Your task to perform on an android device: Open CNN.com Image 0: 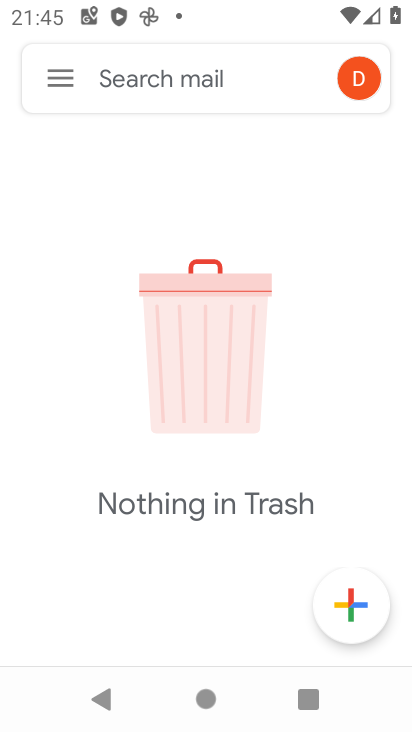
Step 0: press home button
Your task to perform on an android device: Open CNN.com Image 1: 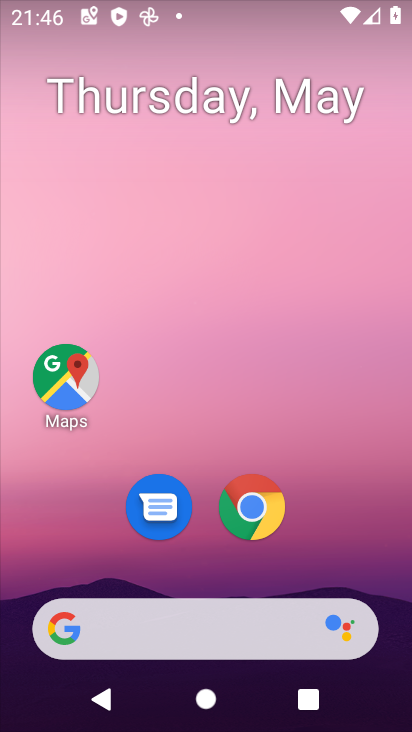
Step 1: click (261, 520)
Your task to perform on an android device: Open CNN.com Image 2: 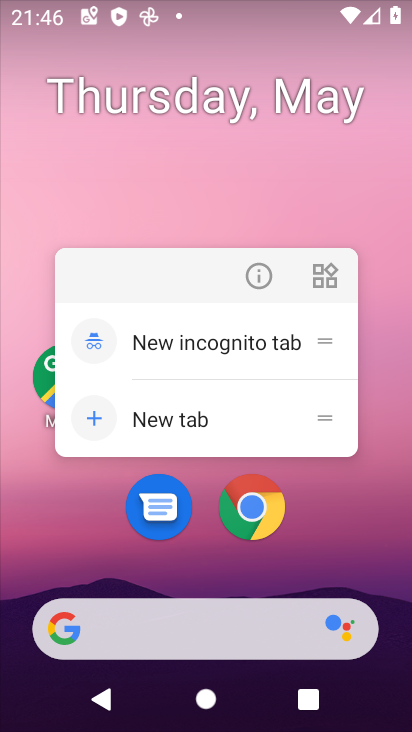
Step 2: click (273, 517)
Your task to perform on an android device: Open CNN.com Image 3: 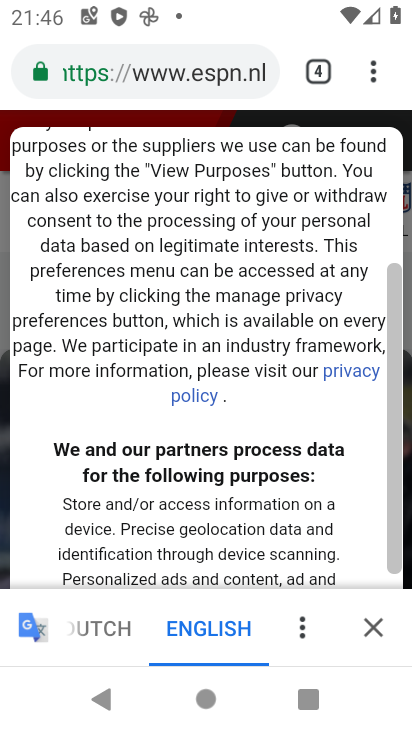
Step 3: click (318, 82)
Your task to perform on an android device: Open CNN.com Image 4: 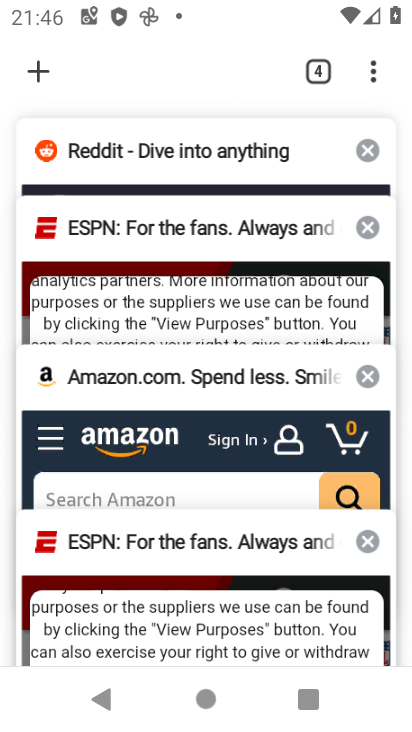
Step 4: click (33, 78)
Your task to perform on an android device: Open CNN.com Image 5: 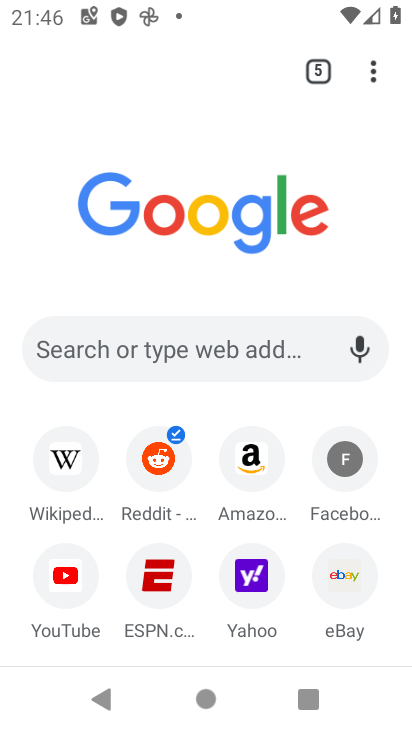
Step 5: click (164, 357)
Your task to perform on an android device: Open CNN.com Image 6: 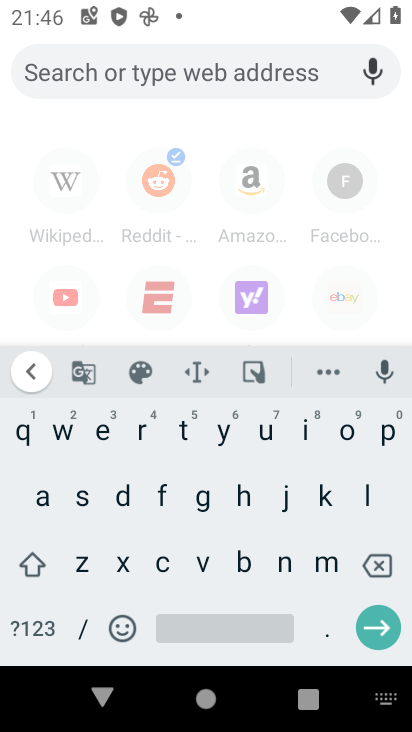
Step 6: click (160, 566)
Your task to perform on an android device: Open CNN.com Image 7: 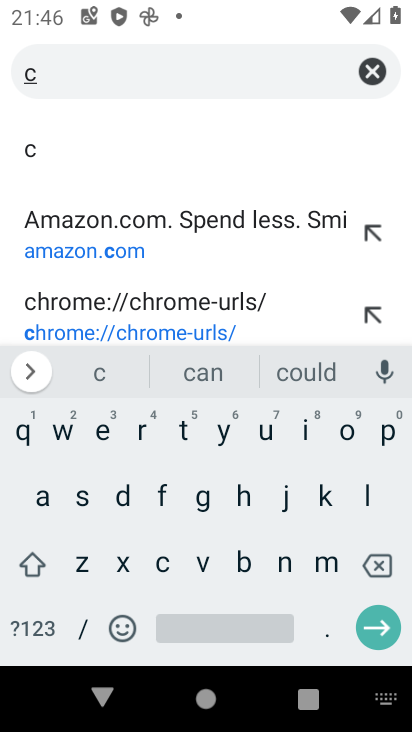
Step 7: click (278, 562)
Your task to perform on an android device: Open CNN.com Image 8: 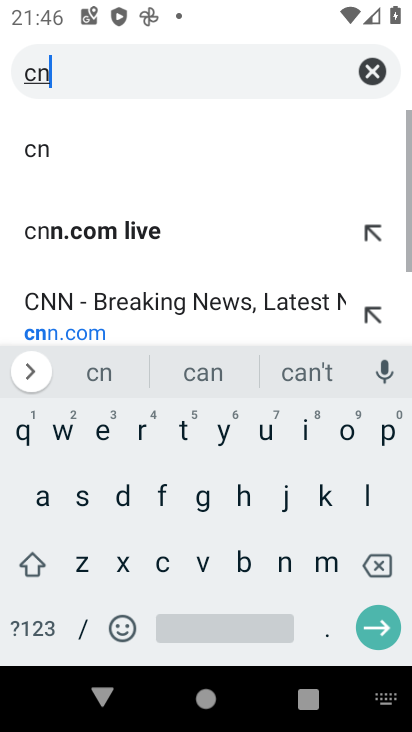
Step 8: click (278, 562)
Your task to perform on an android device: Open CNN.com Image 9: 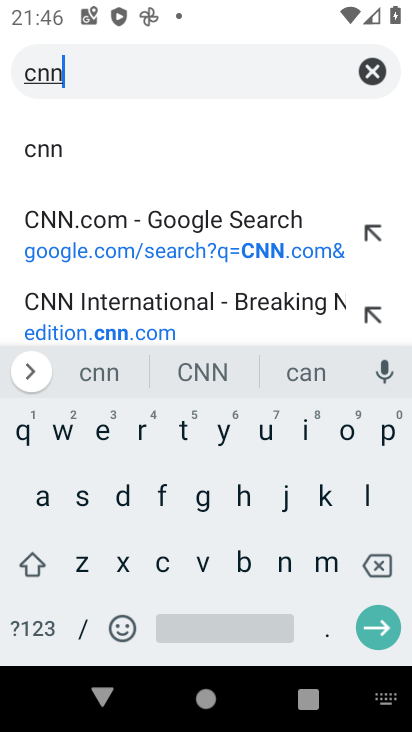
Step 9: click (155, 223)
Your task to perform on an android device: Open CNN.com Image 10: 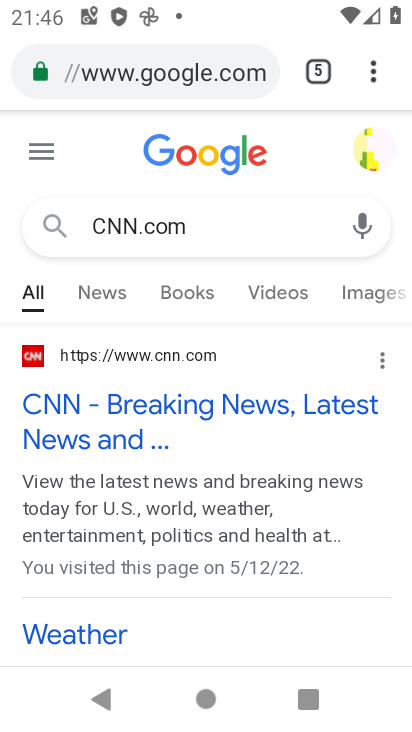
Step 10: click (98, 412)
Your task to perform on an android device: Open CNN.com Image 11: 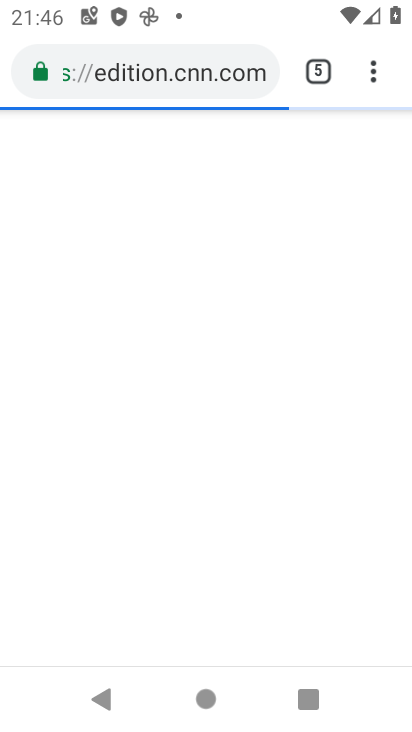
Step 11: task complete